Your task to perform on an android device: change keyboard looks Image 0: 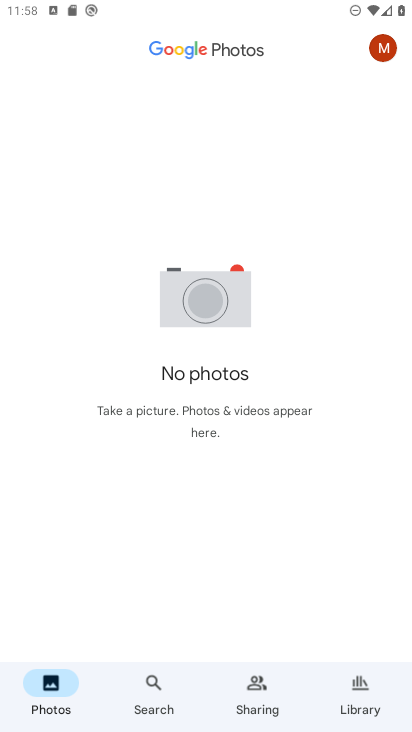
Step 0: press home button
Your task to perform on an android device: change keyboard looks Image 1: 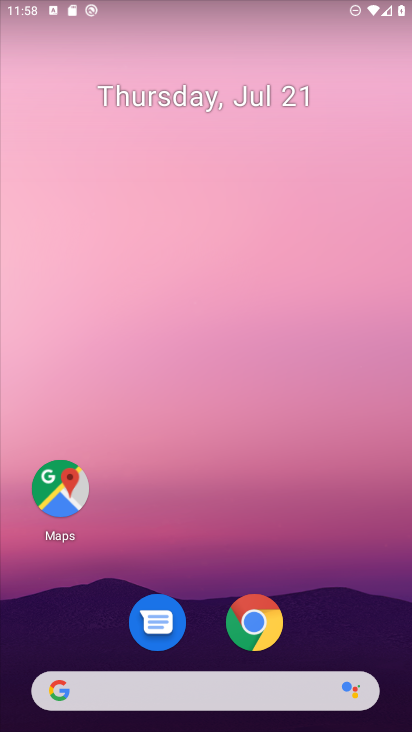
Step 1: drag from (197, 726) to (223, 90)
Your task to perform on an android device: change keyboard looks Image 2: 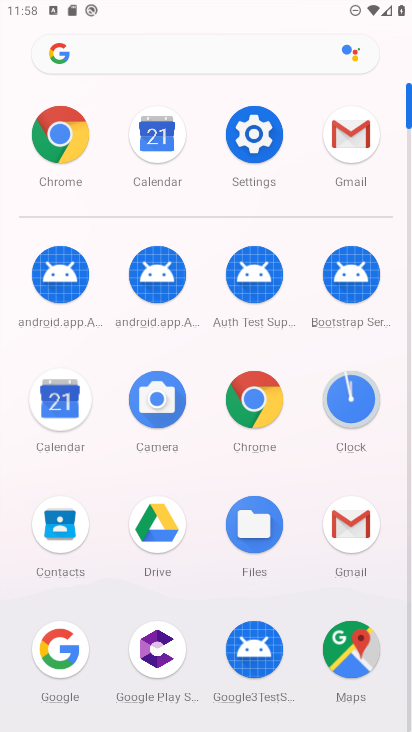
Step 2: click (244, 129)
Your task to perform on an android device: change keyboard looks Image 3: 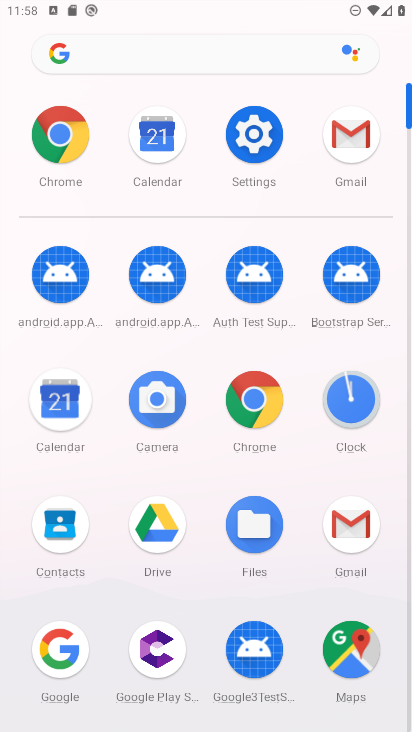
Step 3: click (244, 129)
Your task to perform on an android device: change keyboard looks Image 4: 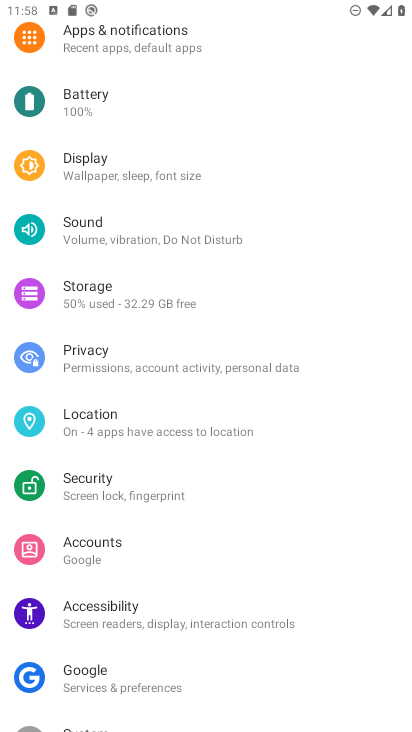
Step 4: drag from (156, 571) to (110, 15)
Your task to perform on an android device: change keyboard looks Image 5: 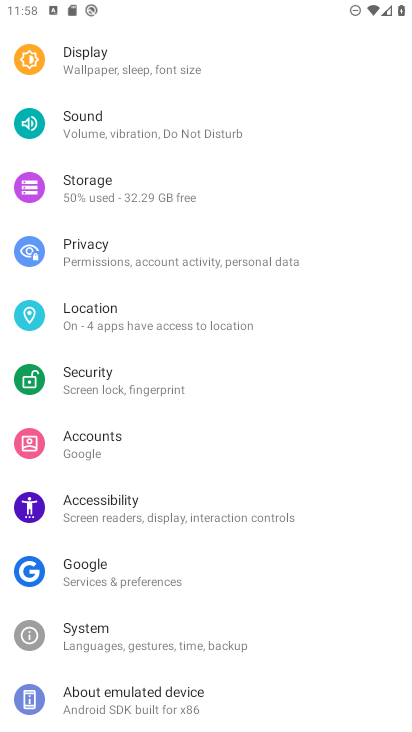
Step 5: click (91, 638)
Your task to perform on an android device: change keyboard looks Image 6: 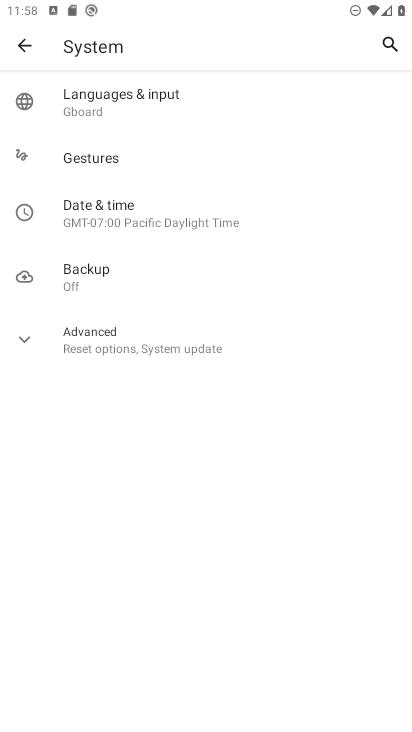
Step 6: click (173, 105)
Your task to perform on an android device: change keyboard looks Image 7: 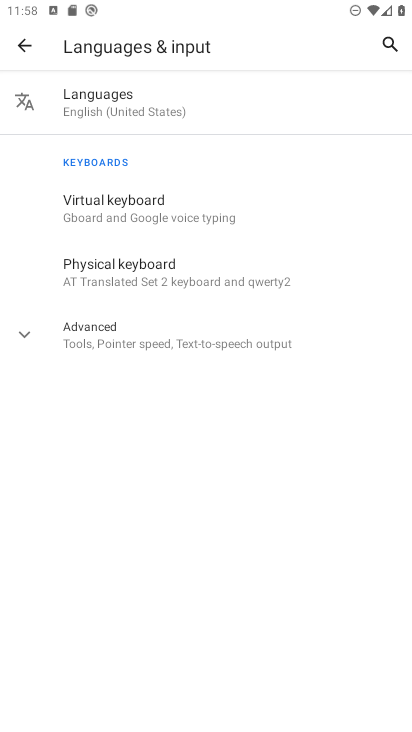
Step 7: click (155, 204)
Your task to perform on an android device: change keyboard looks Image 8: 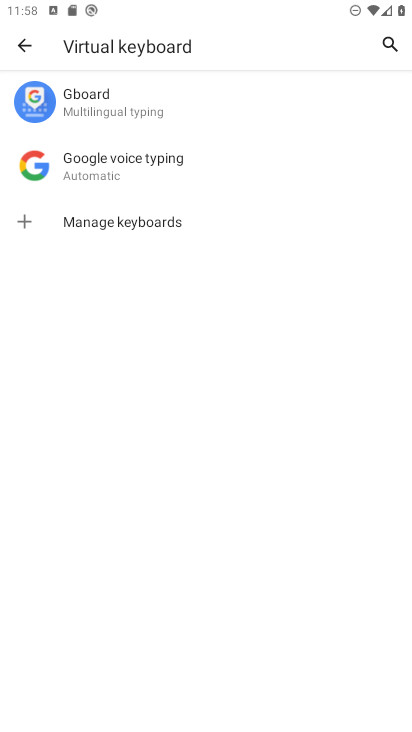
Step 8: click (128, 106)
Your task to perform on an android device: change keyboard looks Image 9: 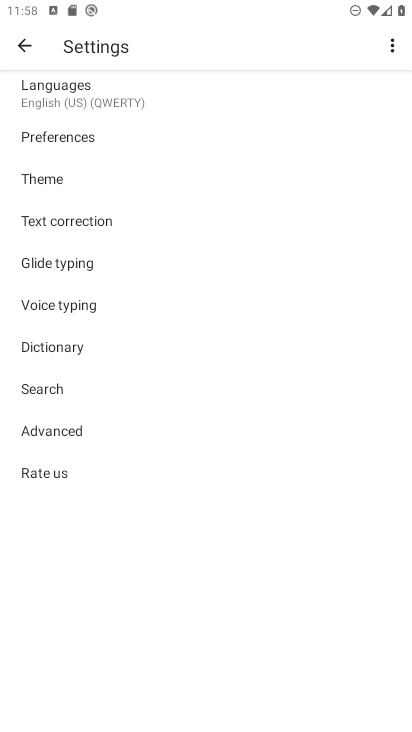
Step 9: click (35, 187)
Your task to perform on an android device: change keyboard looks Image 10: 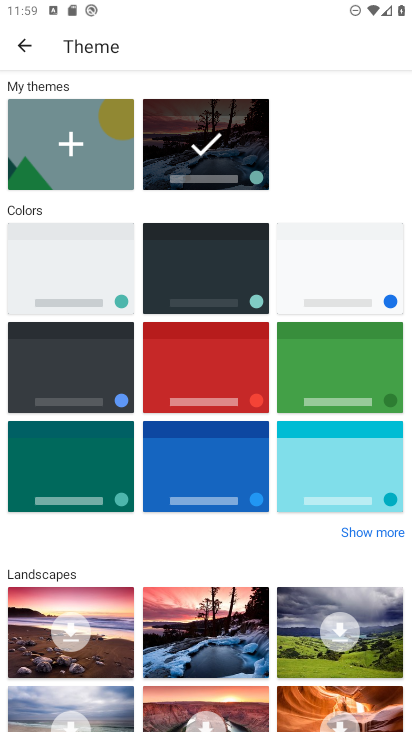
Step 10: click (209, 612)
Your task to perform on an android device: change keyboard looks Image 11: 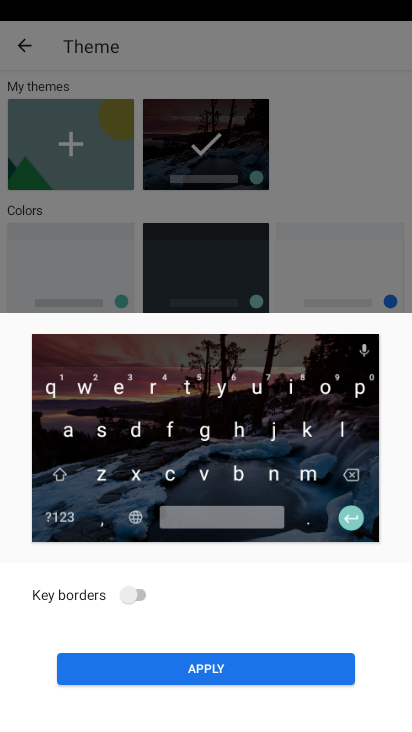
Step 11: click (253, 666)
Your task to perform on an android device: change keyboard looks Image 12: 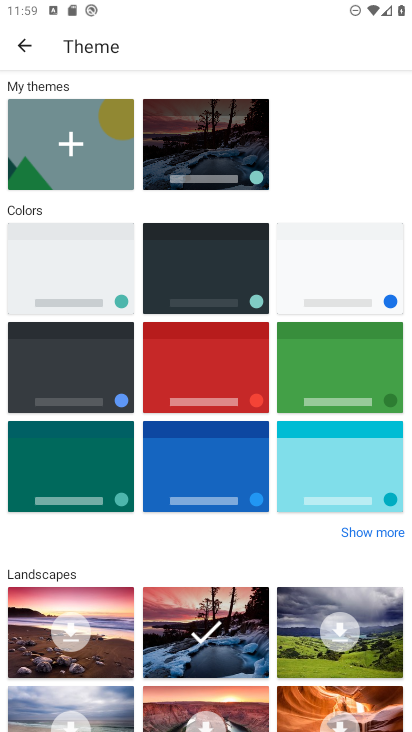
Step 12: task complete